Your task to perform on an android device: Open CNN.com Image 0: 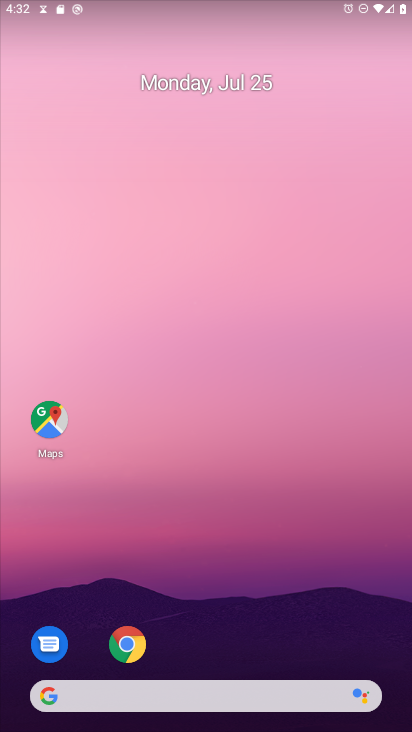
Step 0: press home button
Your task to perform on an android device: Open CNN.com Image 1: 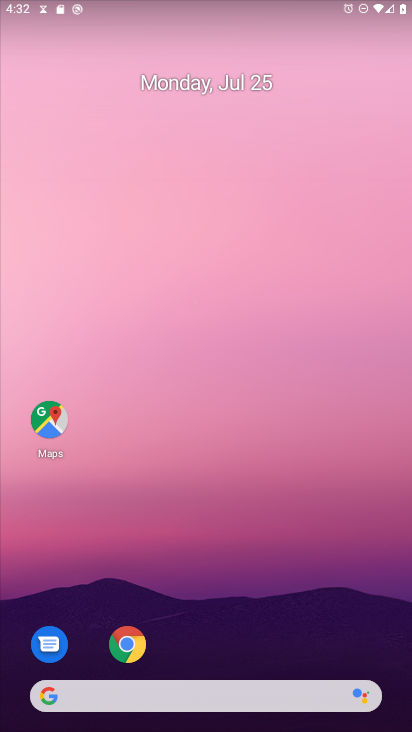
Step 1: click (44, 695)
Your task to perform on an android device: Open CNN.com Image 2: 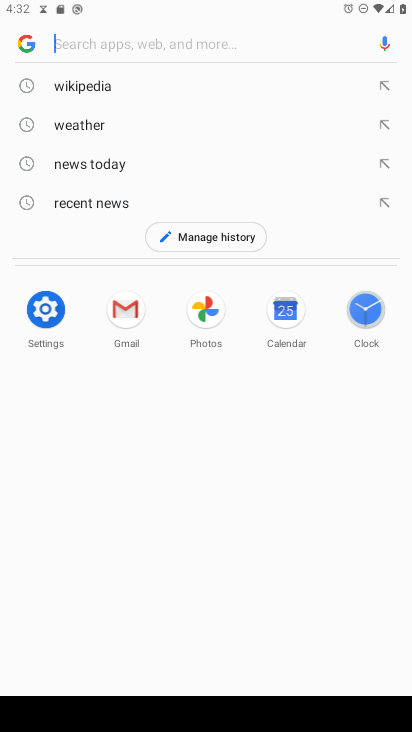
Step 2: type "CNN.com"
Your task to perform on an android device: Open CNN.com Image 3: 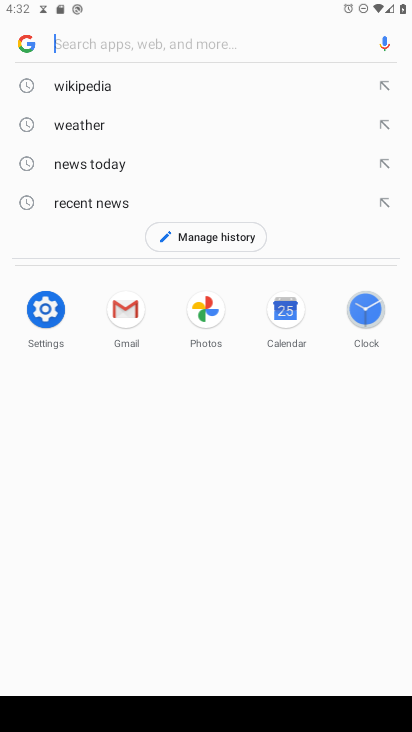
Step 3: click (83, 42)
Your task to perform on an android device: Open CNN.com Image 4: 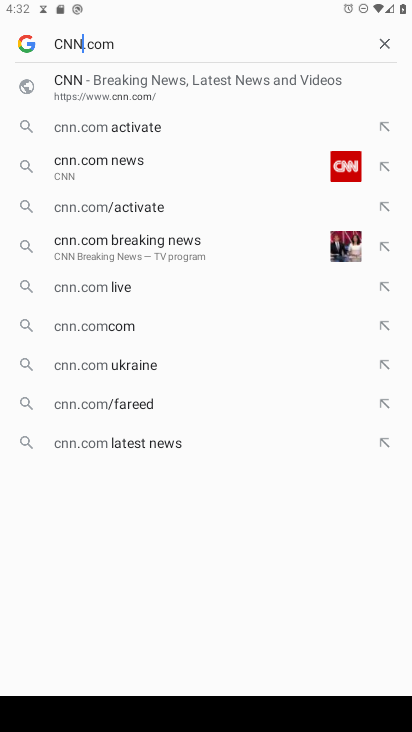
Step 4: press enter
Your task to perform on an android device: Open CNN.com Image 5: 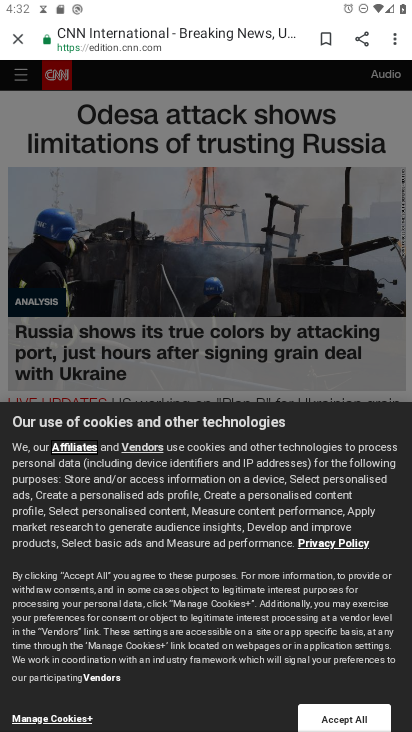
Step 5: task complete